Your task to perform on an android device: visit the assistant section in the google photos Image 0: 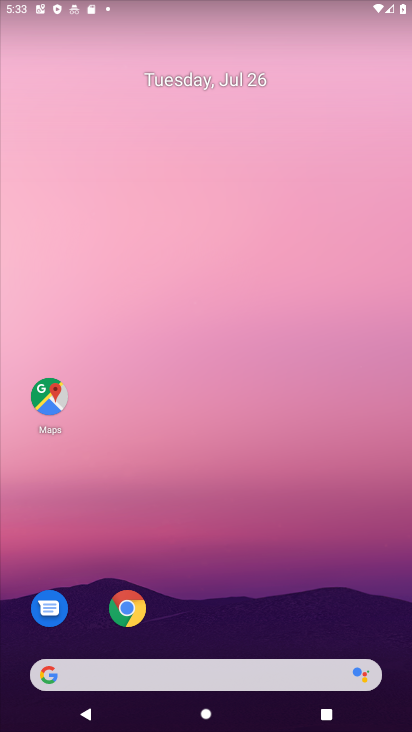
Step 0: press home button
Your task to perform on an android device: visit the assistant section in the google photos Image 1: 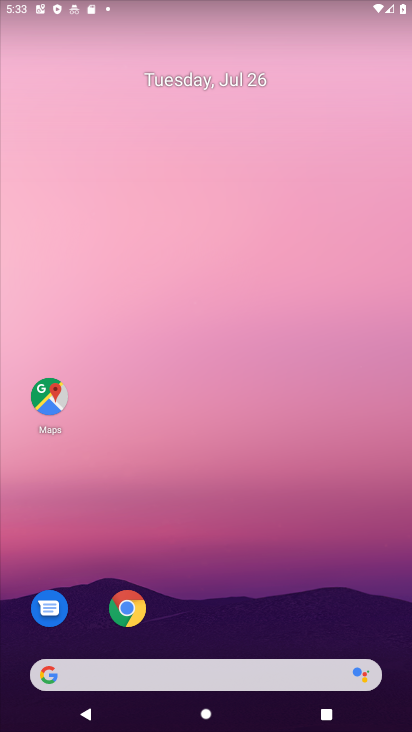
Step 1: drag from (289, 639) to (203, 0)
Your task to perform on an android device: visit the assistant section in the google photos Image 2: 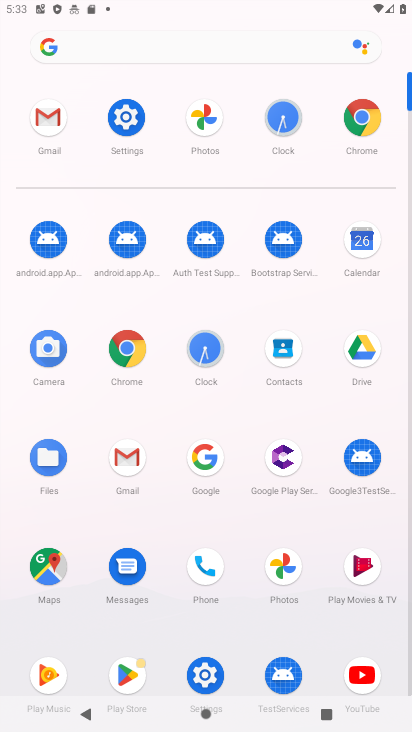
Step 2: click (202, 117)
Your task to perform on an android device: visit the assistant section in the google photos Image 3: 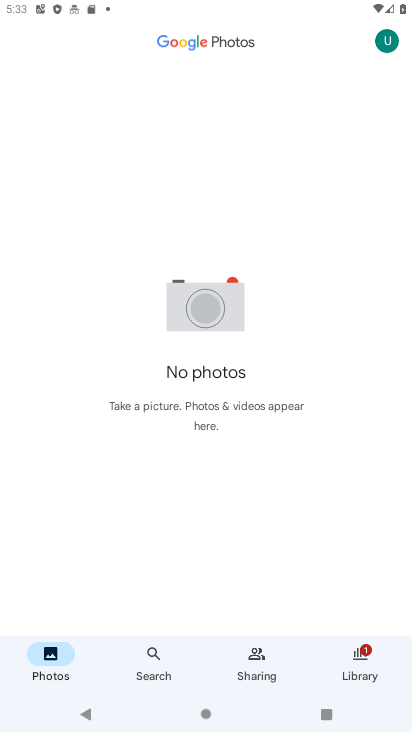
Step 3: task complete